Your task to perform on an android device: toggle location history Image 0: 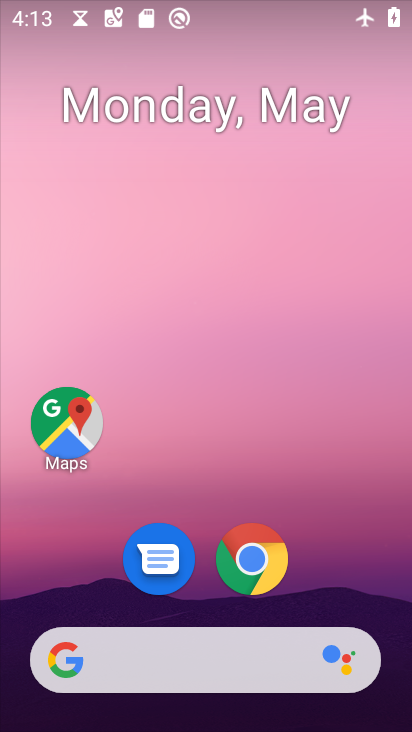
Step 0: drag from (280, 615) to (329, 33)
Your task to perform on an android device: toggle location history Image 1: 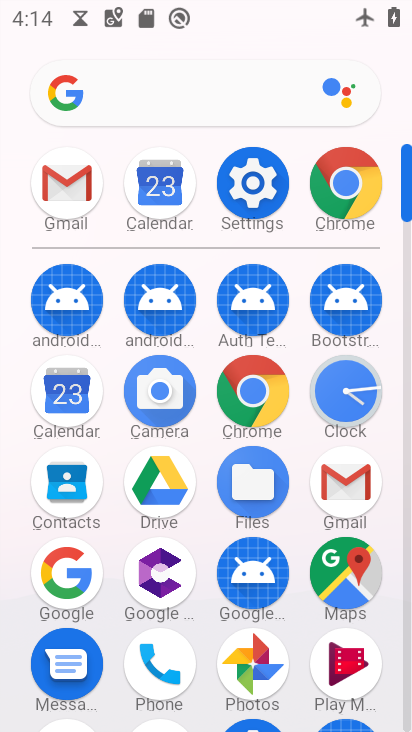
Step 1: click (253, 182)
Your task to perform on an android device: toggle location history Image 2: 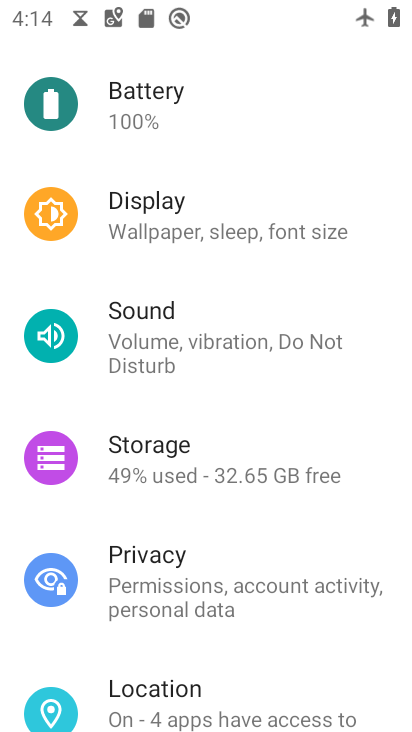
Step 2: drag from (182, 675) to (246, 328)
Your task to perform on an android device: toggle location history Image 3: 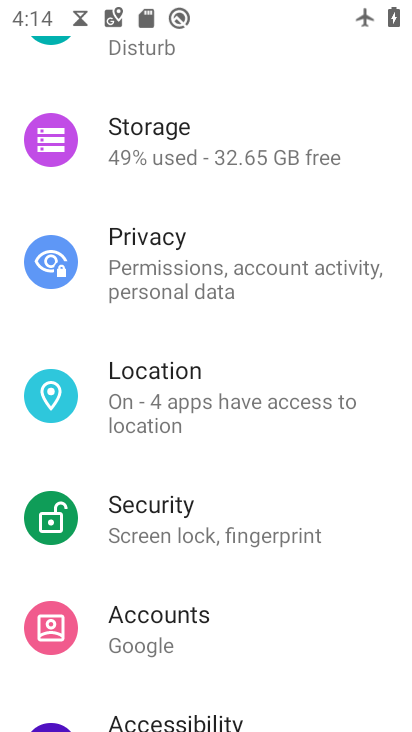
Step 3: click (174, 407)
Your task to perform on an android device: toggle location history Image 4: 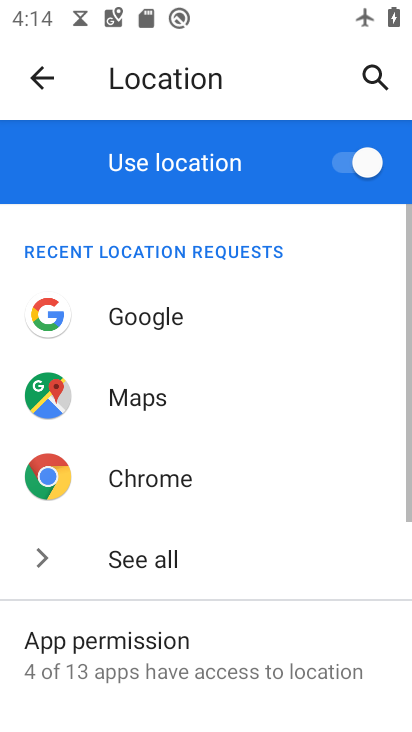
Step 4: drag from (158, 668) to (224, 427)
Your task to perform on an android device: toggle location history Image 5: 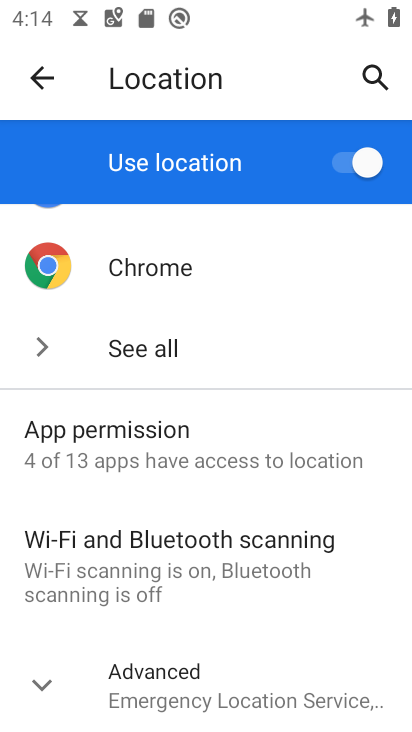
Step 5: click (111, 675)
Your task to perform on an android device: toggle location history Image 6: 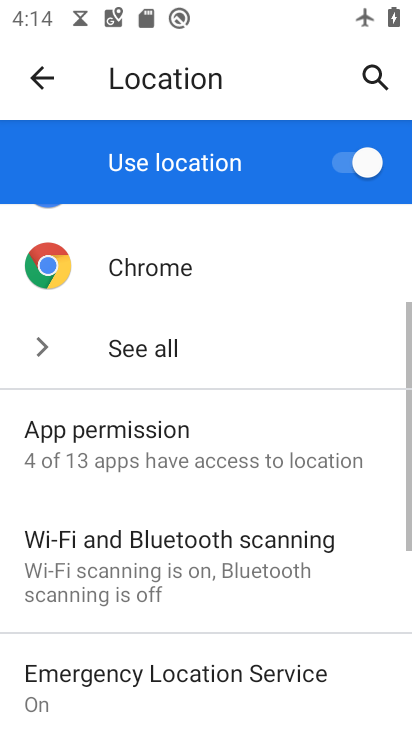
Step 6: drag from (124, 696) to (295, 281)
Your task to perform on an android device: toggle location history Image 7: 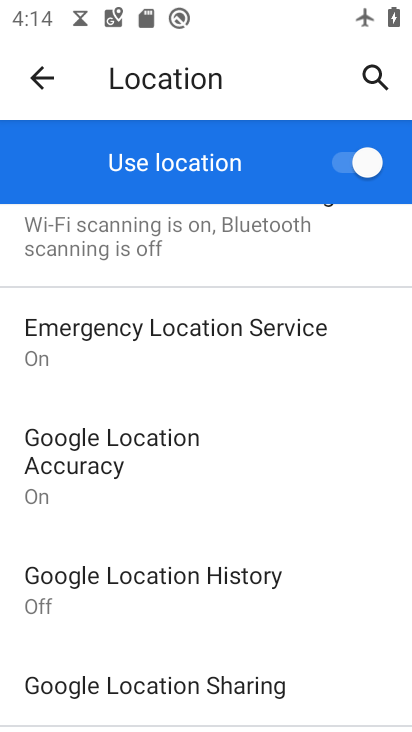
Step 7: click (185, 586)
Your task to perform on an android device: toggle location history Image 8: 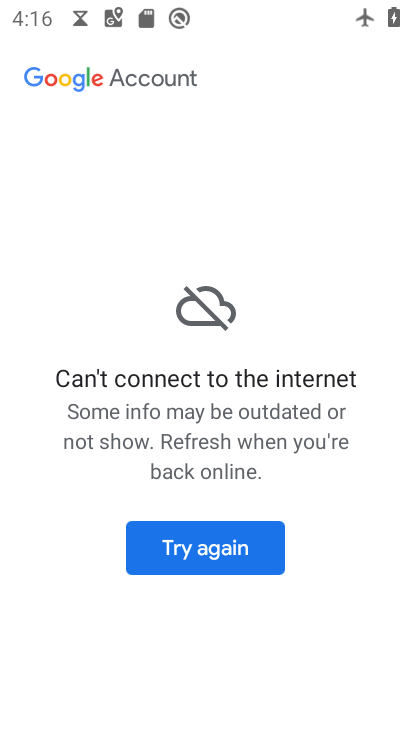
Step 8: press home button
Your task to perform on an android device: toggle location history Image 9: 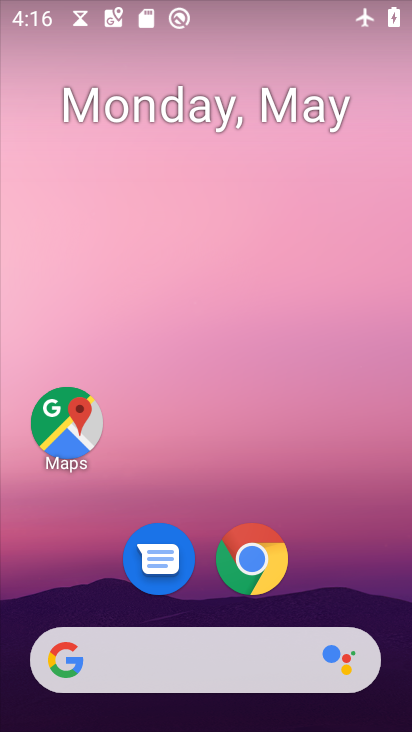
Step 9: drag from (285, 614) to (296, 196)
Your task to perform on an android device: toggle location history Image 10: 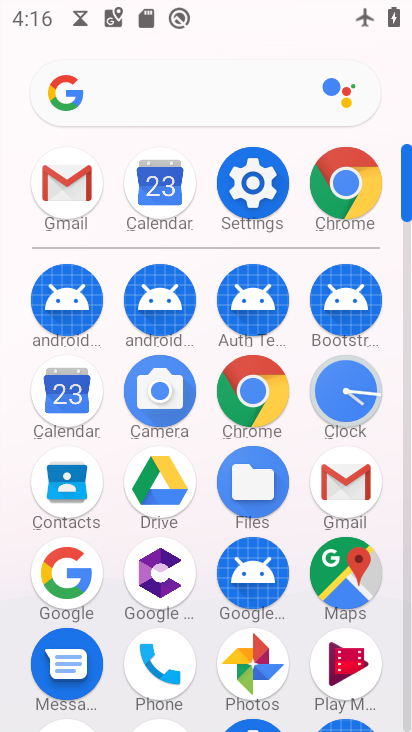
Step 10: click (257, 185)
Your task to perform on an android device: toggle location history Image 11: 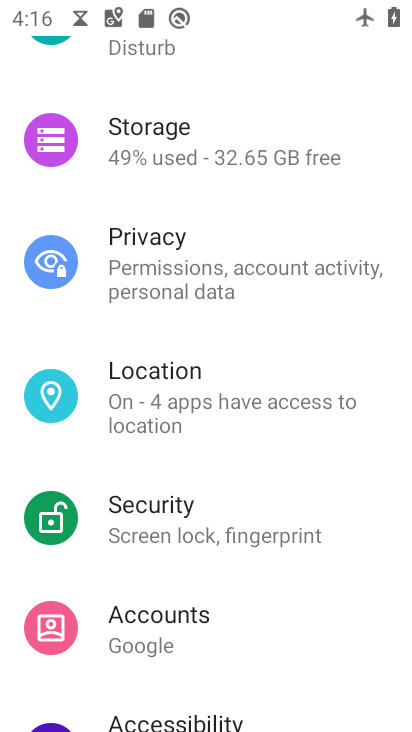
Step 11: click (192, 410)
Your task to perform on an android device: toggle location history Image 12: 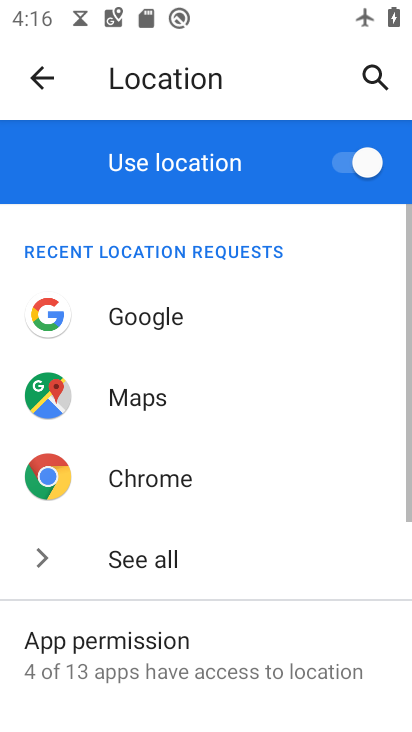
Step 12: drag from (131, 661) to (162, 327)
Your task to perform on an android device: toggle location history Image 13: 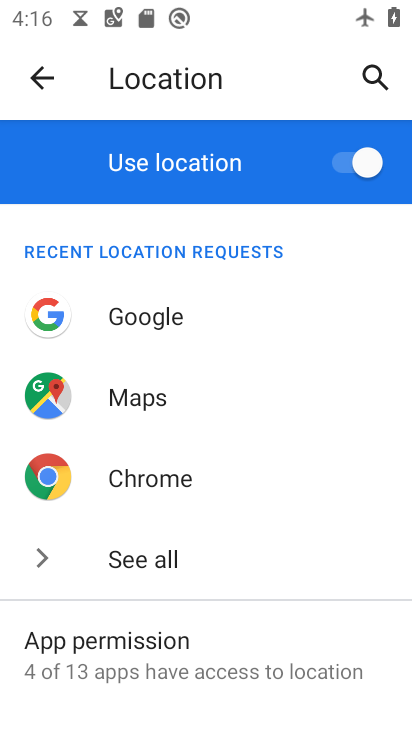
Step 13: drag from (152, 698) to (185, 381)
Your task to perform on an android device: toggle location history Image 14: 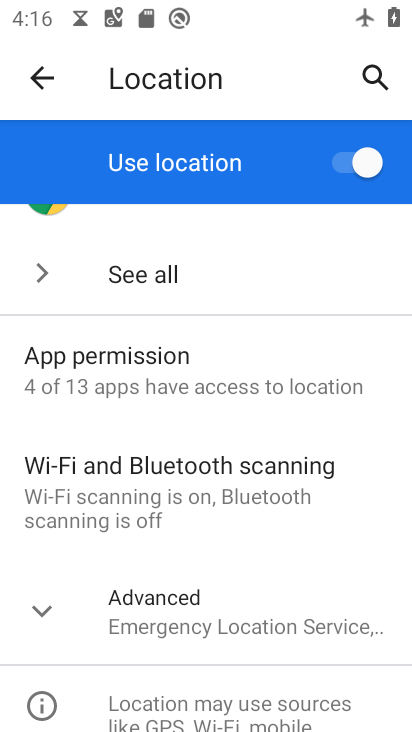
Step 14: click (148, 611)
Your task to perform on an android device: toggle location history Image 15: 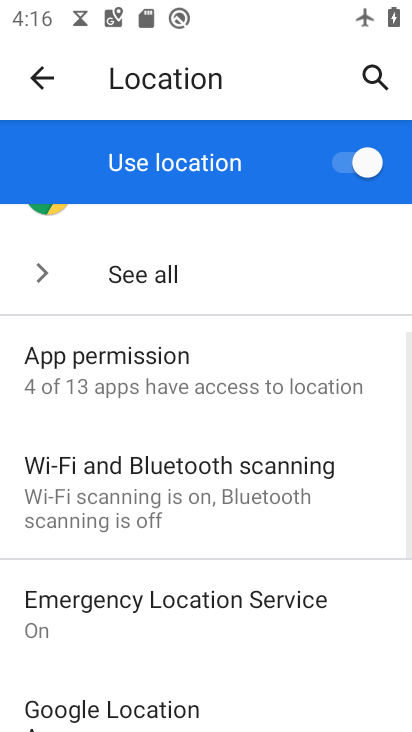
Step 15: drag from (161, 700) to (179, 437)
Your task to perform on an android device: toggle location history Image 16: 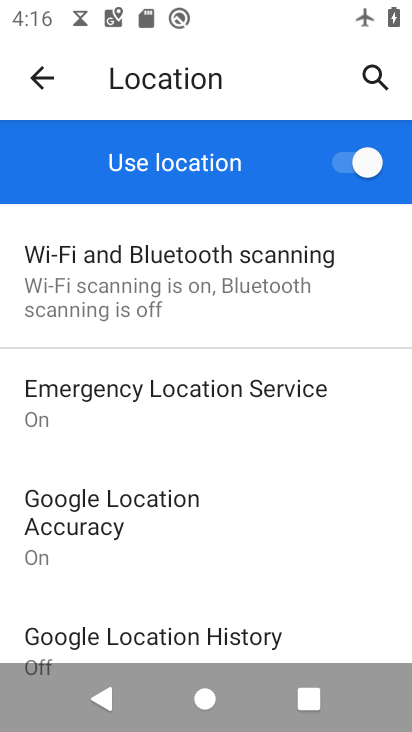
Step 16: click (155, 641)
Your task to perform on an android device: toggle location history Image 17: 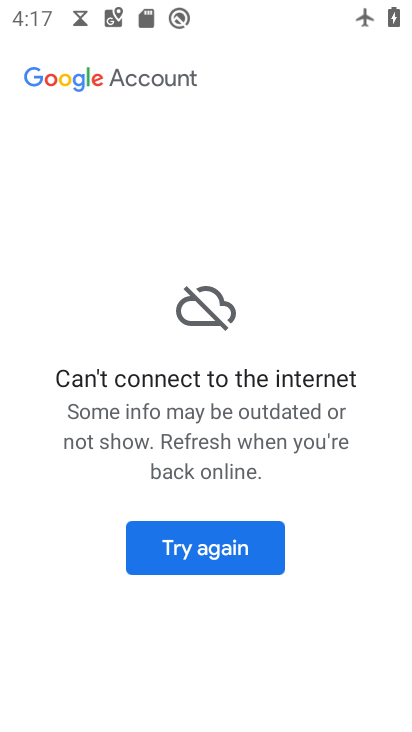
Step 17: task complete